Your task to perform on an android device: turn on the 24-hour format for clock Image 0: 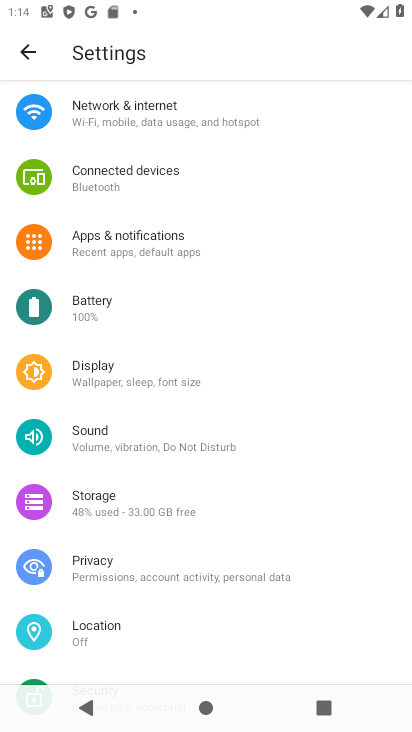
Step 0: press home button
Your task to perform on an android device: turn on the 24-hour format for clock Image 1: 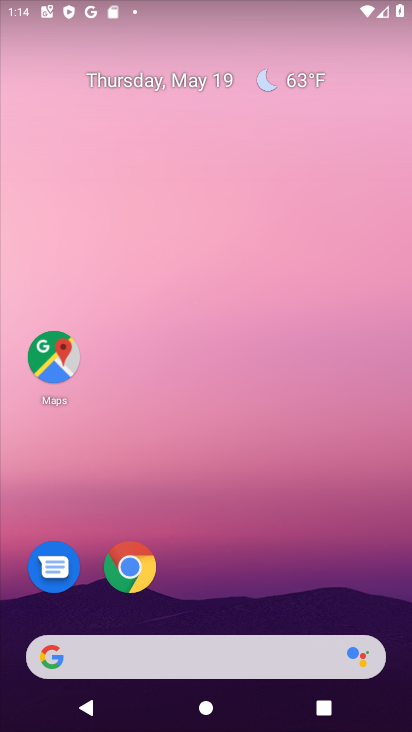
Step 1: drag from (315, 553) to (333, 45)
Your task to perform on an android device: turn on the 24-hour format for clock Image 2: 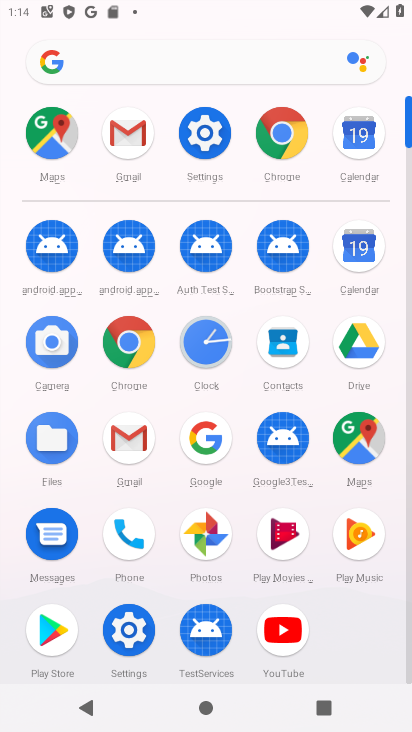
Step 2: click (221, 351)
Your task to perform on an android device: turn on the 24-hour format for clock Image 3: 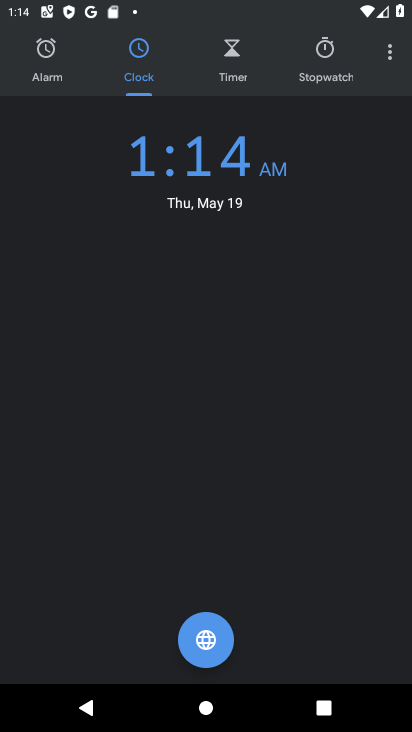
Step 3: click (397, 49)
Your task to perform on an android device: turn on the 24-hour format for clock Image 4: 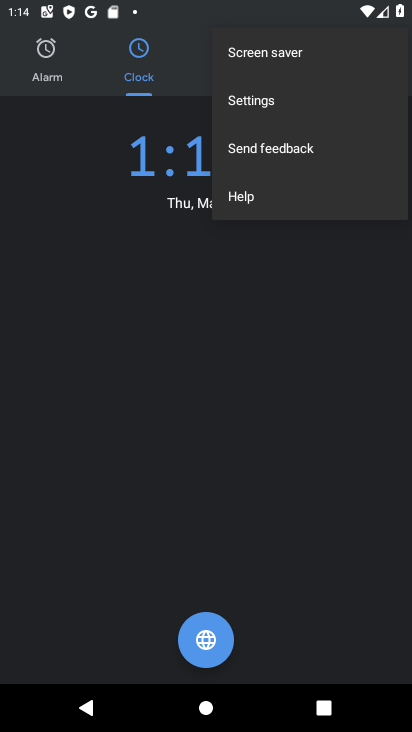
Step 4: click (271, 101)
Your task to perform on an android device: turn on the 24-hour format for clock Image 5: 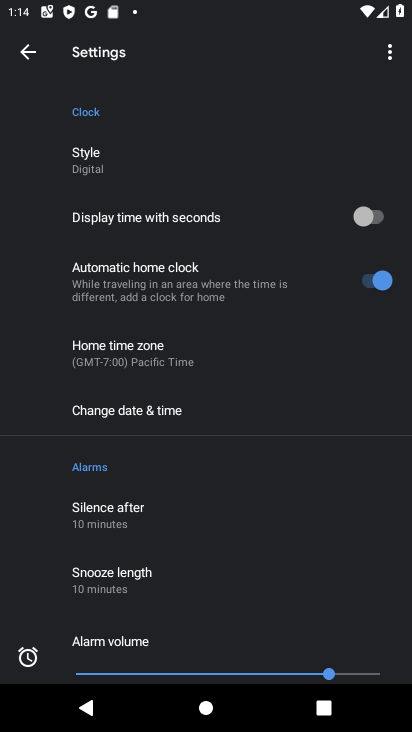
Step 5: drag from (160, 570) to (133, 138)
Your task to perform on an android device: turn on the 24-hour format for clock Image 6: 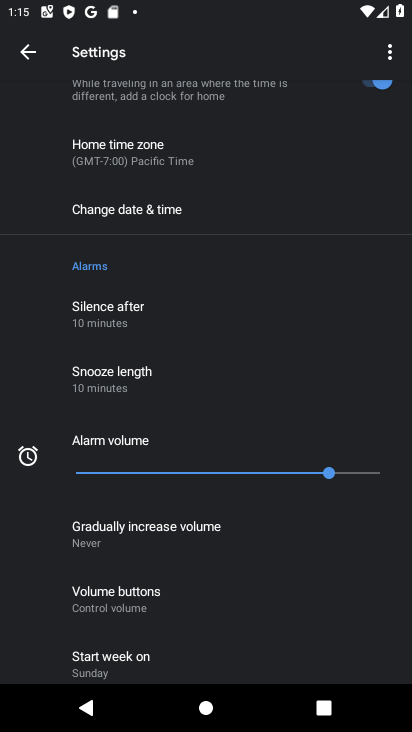
Step 6: drag from (249, 223) to (259, 590)
Your task to perform on an android device: turn on the 24-hour format for clock Image 7: 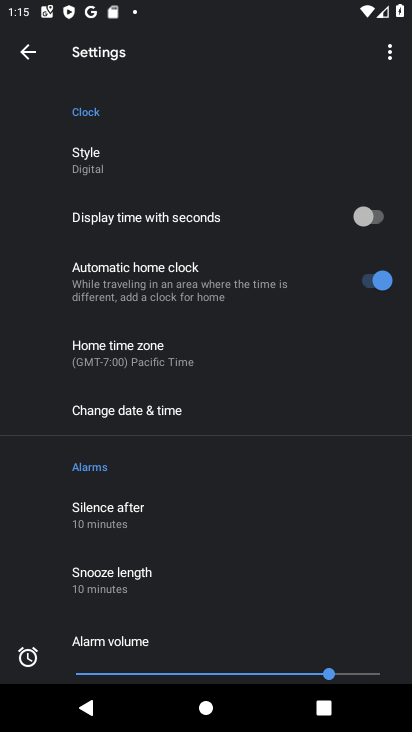
Step 7: click (132, 412)
Your task to perform on an android device: turn on the 24-hour format for clock Image 8: 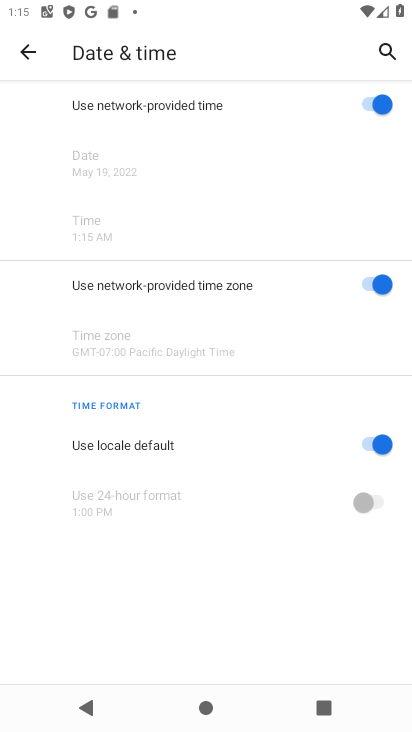
Step 8: click (380, 450)
Your task to perform on an android device: turn on the 24-hour format for clock Image 9: 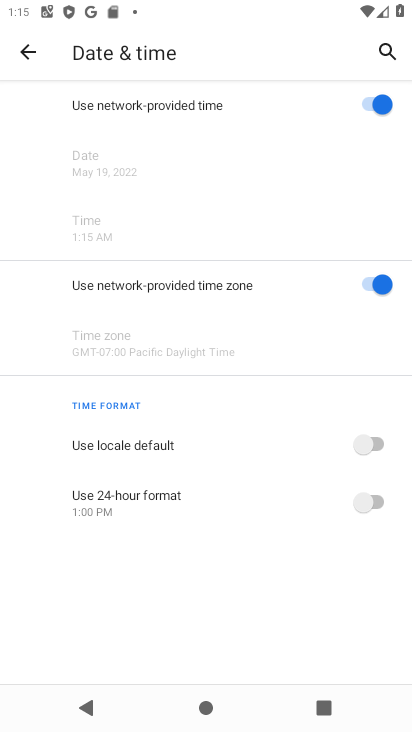
Step 9: task complete